Your task to perform on an android device: find photos in the google photos app Image 0: 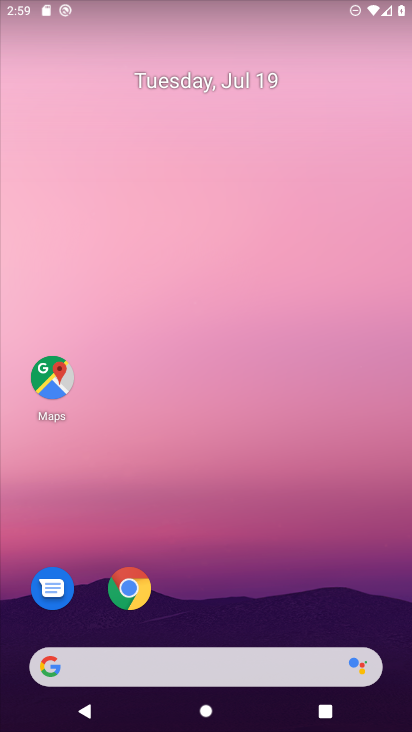
Step 0: drag from (177, 604) to (177, 232)
Your task to perform on an android device: find photos in the google photos app Image 1: 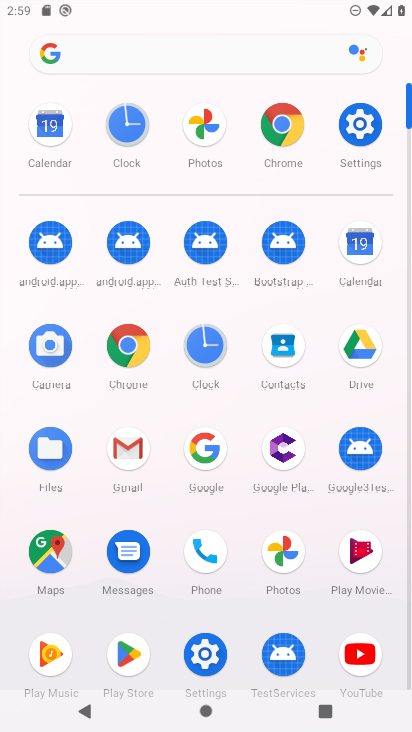
Step 1: click (270, 545)
Your task to perform on an android device: find photos in the google photos app Image 2: 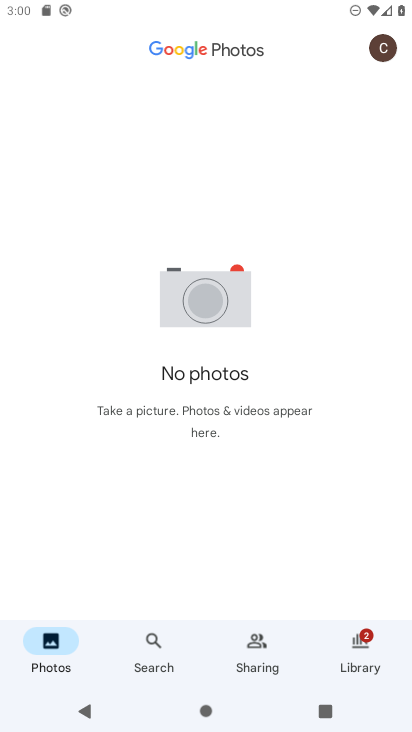
Step 2: task complete